Your task to perform on an android device: Open battery settings Image 0: 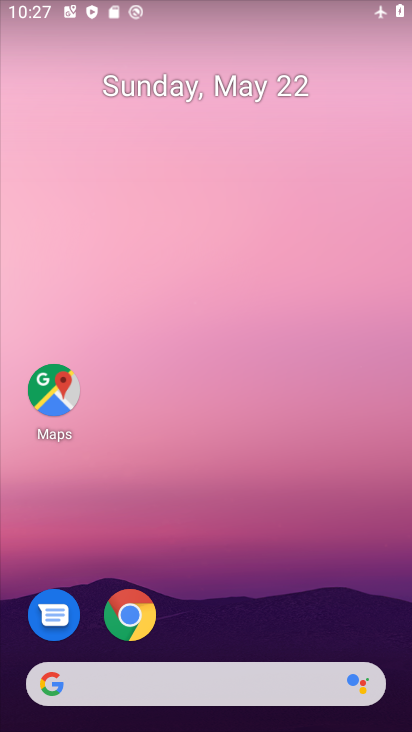
Step 0: drag from (226, 608) to (246, 126)
Your task to perform on an android device: Open battery settings Image 1: 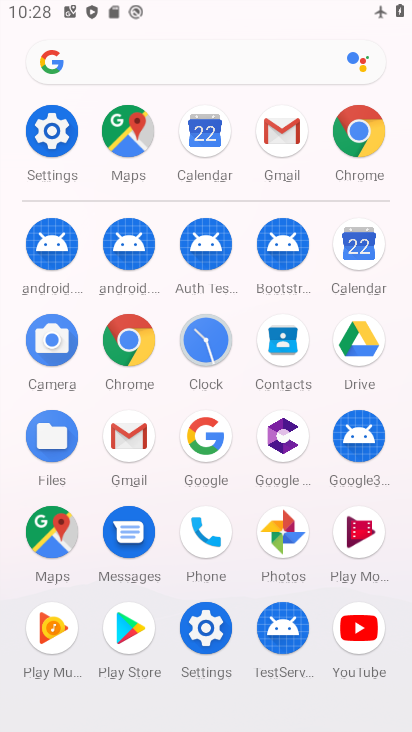
Step 1: click (46, 127)
Your task to perform on an android device: Open battery settings Image 2: 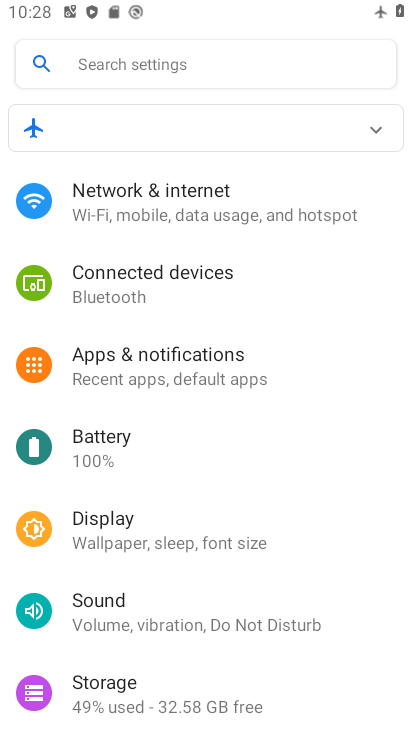
Step 2: drag from (232, 628) to (241, 378)
Your task to perform on an android device: Open battery settings Image 3: 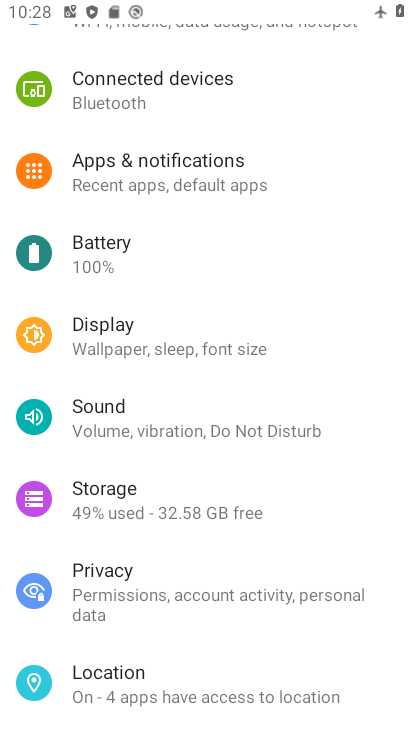
Step 3: click (110, 257)
Your task to perform on an android device: Open battery settings Image 4: 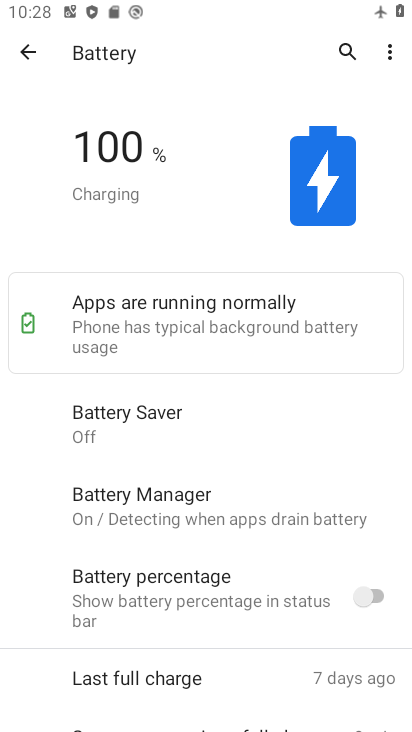
Step 4: task complete